Your task to perform on an android device: open app "Adobe Express: Graphic Design" (install if not already installed) Image 0: 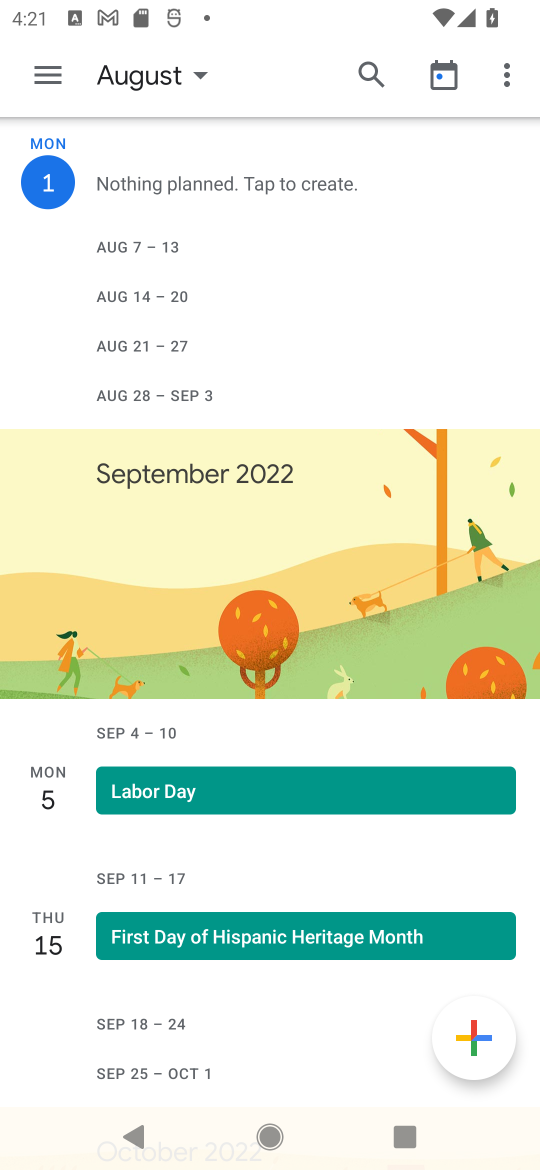
Step 0: press home button
Your task to perform on an android device: open app "Adobe Express: Graphic Design" (install if not already installed) Image 1: 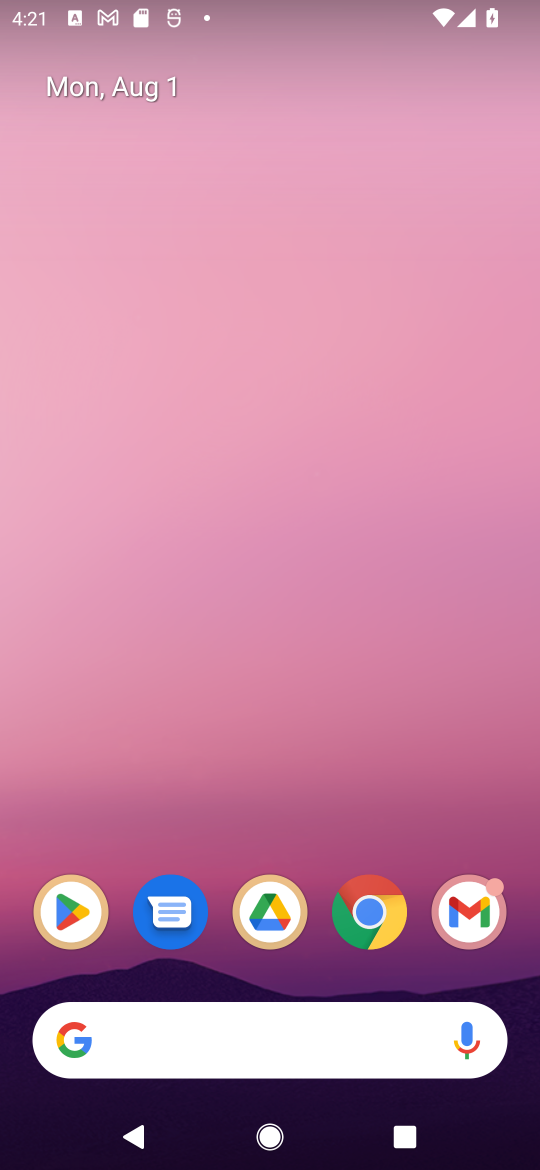
Step 1: click (51, 922)
Your task to perform on an android device: open app "Adobe Express: Graphic Design" (install if not already installed) Image 2: 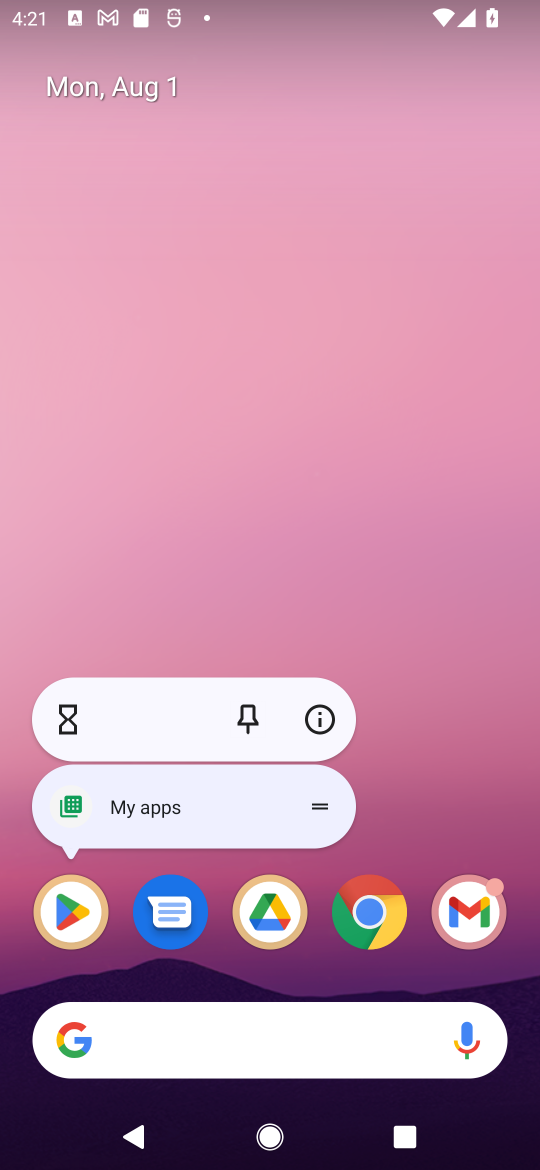
Step 2: click (51, 919)
Your task to perform on an android device: open app "Adobe Express: Graphic Design" (install if not already installed) Image 3: 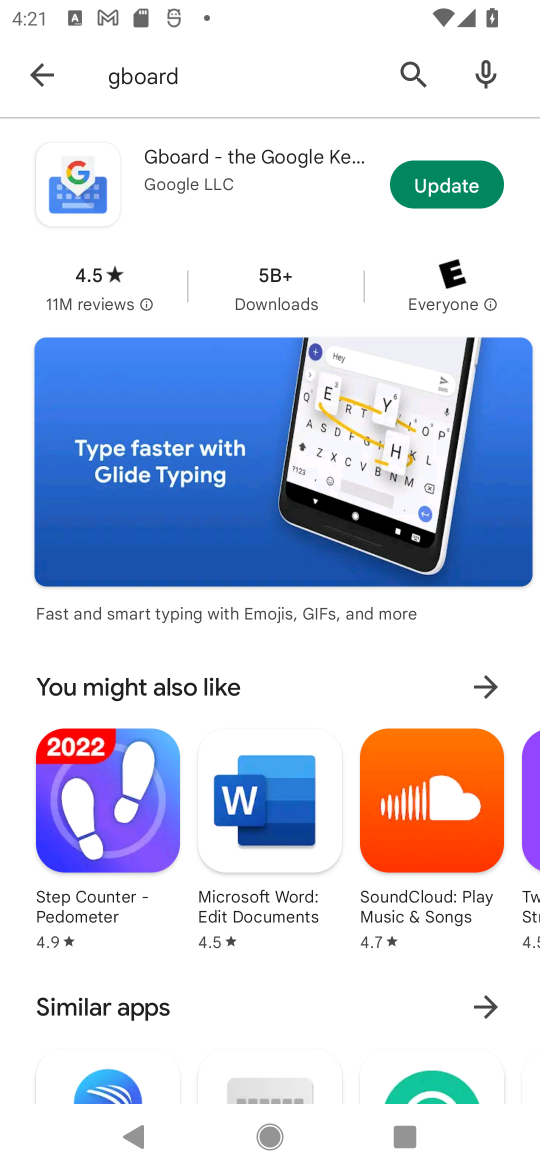
Step 3: click (415, 75)
Your task to perform on an android device: open app "Adobe Express: Graphic Design" (install if not already installed) Image 4: 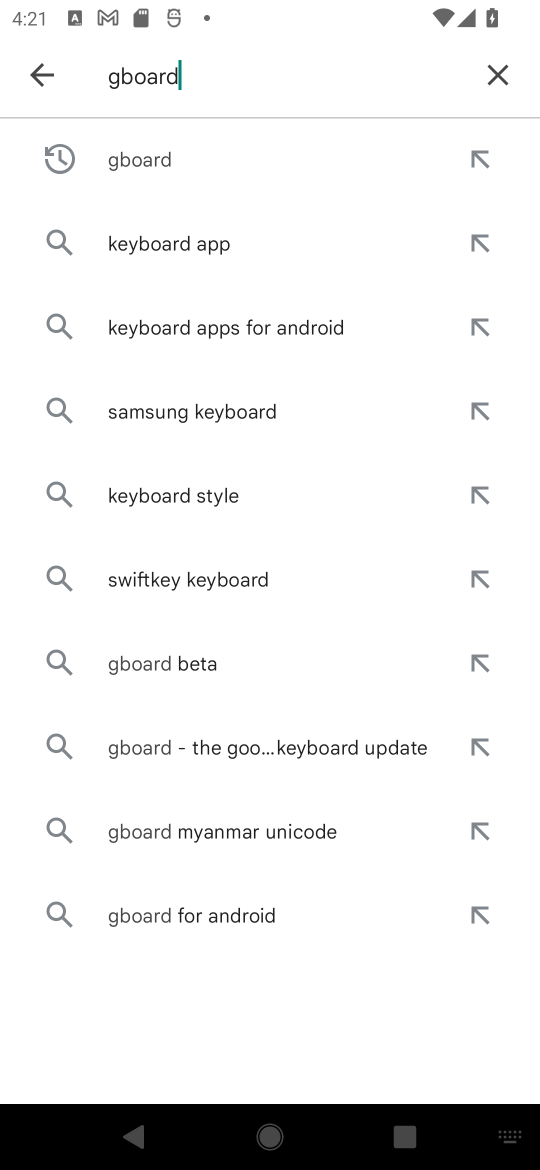
Step 4: click (495, 78)
Your task to perform on an android device: open app "Adobe Express: Graphic Design" (install if not already installed) Image 5: 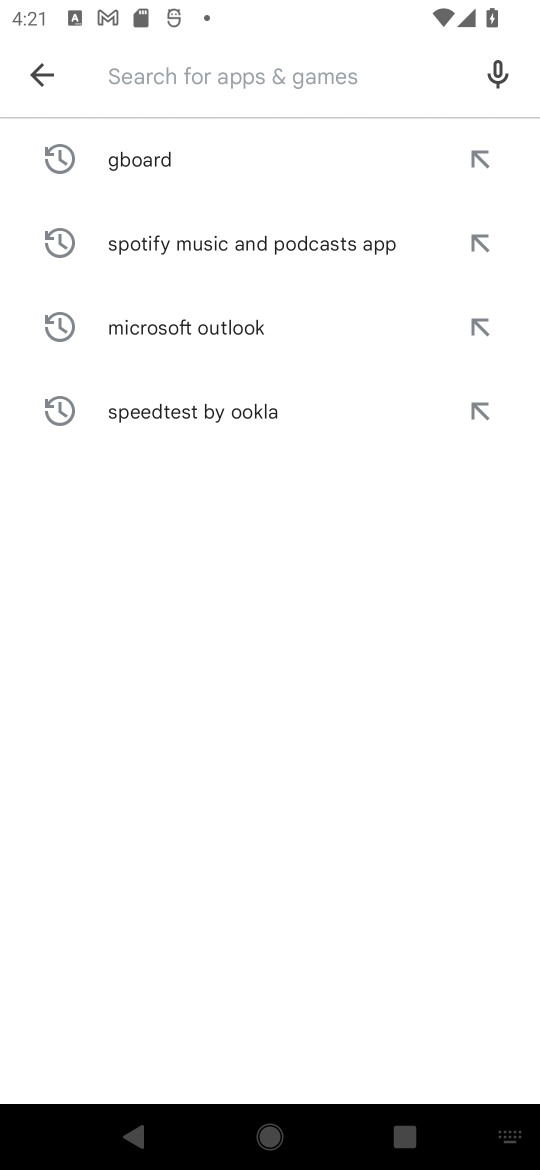
Step 5: type "Adobe Express: Graphic Design"
Your task to perform on an android device: open app "Adobe Express: Graphic Design" (install if not already installed) Image 6: 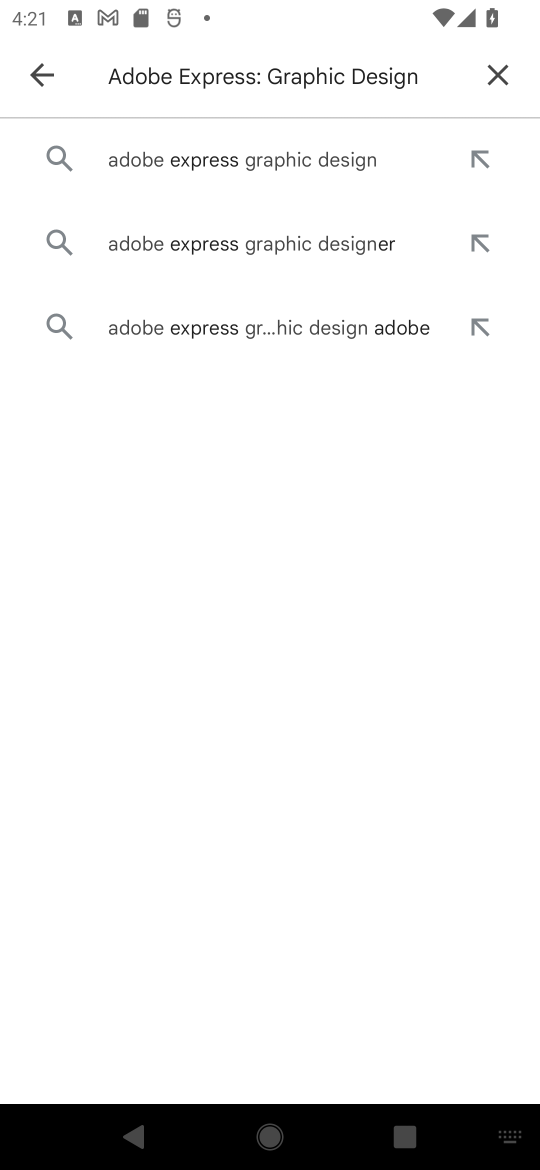
Step 6: click (150, 169)
Your task to perform on an android device: open app "Adobe Express: Graphic Design" (install if not already installed) Image 7: 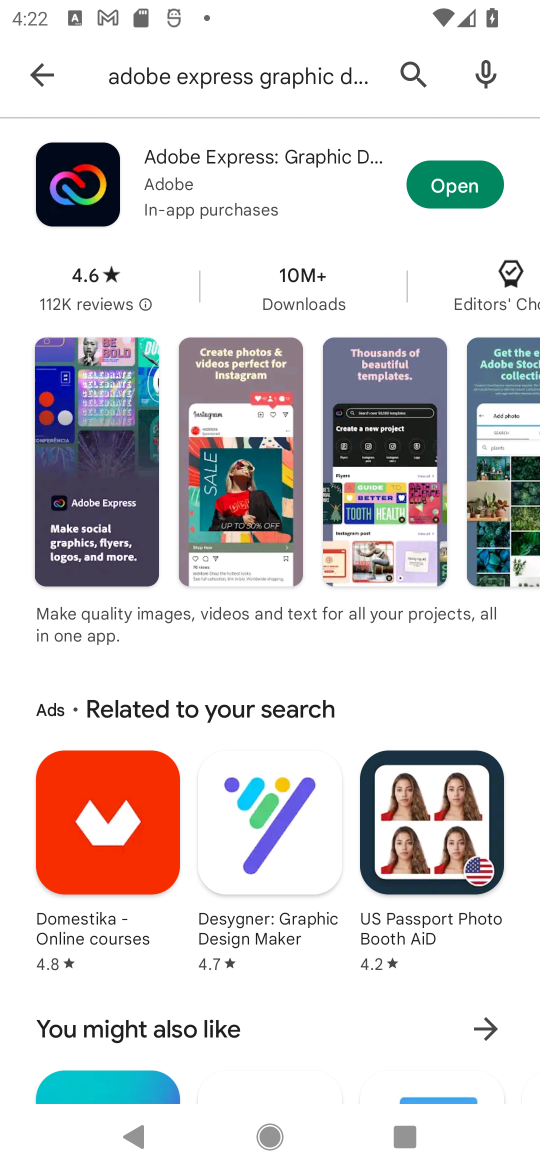
Step 7: click (441, 191)
Your task to perform on an android device: open app "Adobe Express: Graphic Design" (install if not already installed) Image 8: 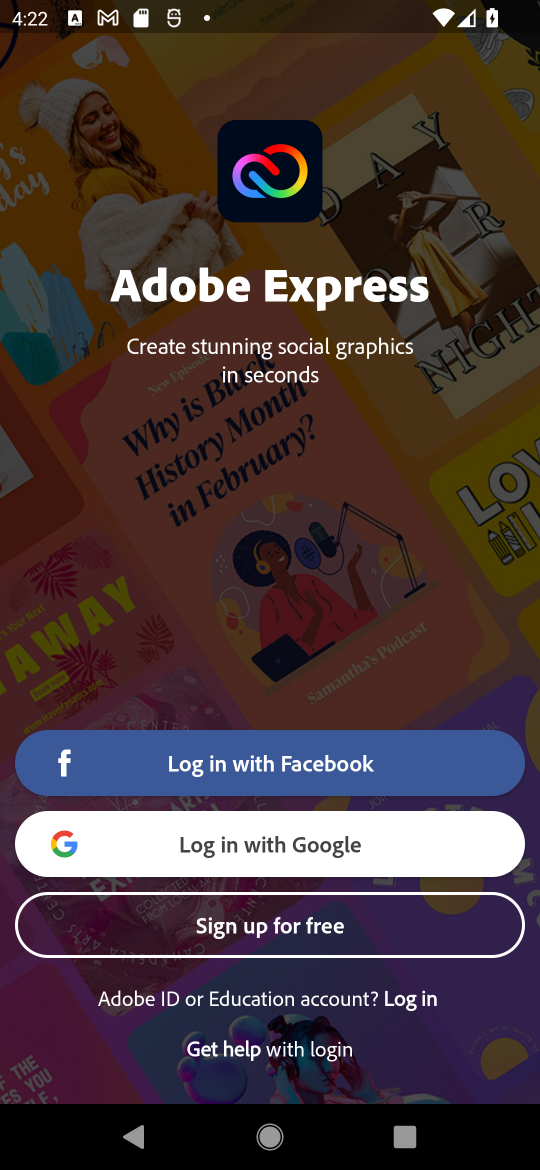
Step 8: task complete